Your task to perform on an android device: Open Google Image 0: 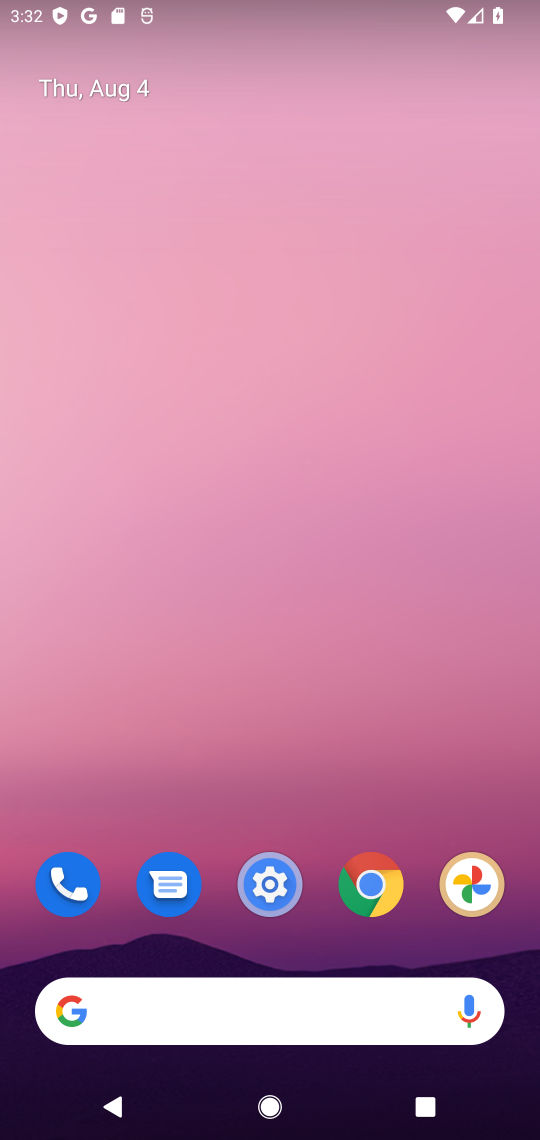
Step 0: drag from (185, 710) to (163, 445)
Your task to perform on an android device: Open Google Image 1: 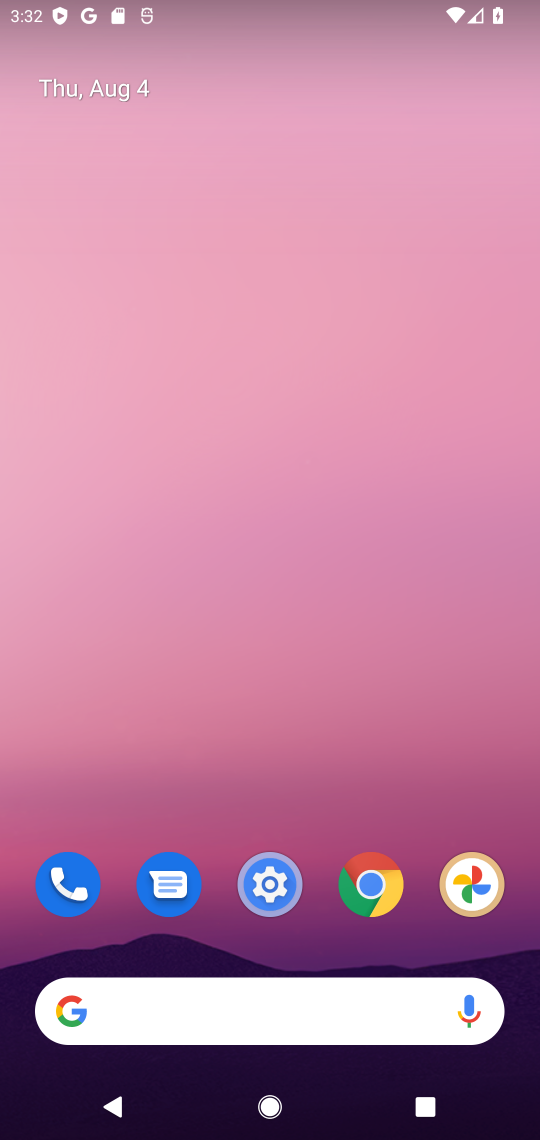
Step 1: drag from (222, 938) to (347, 71)
Your task to perform on an android device: Open Google Image 2: 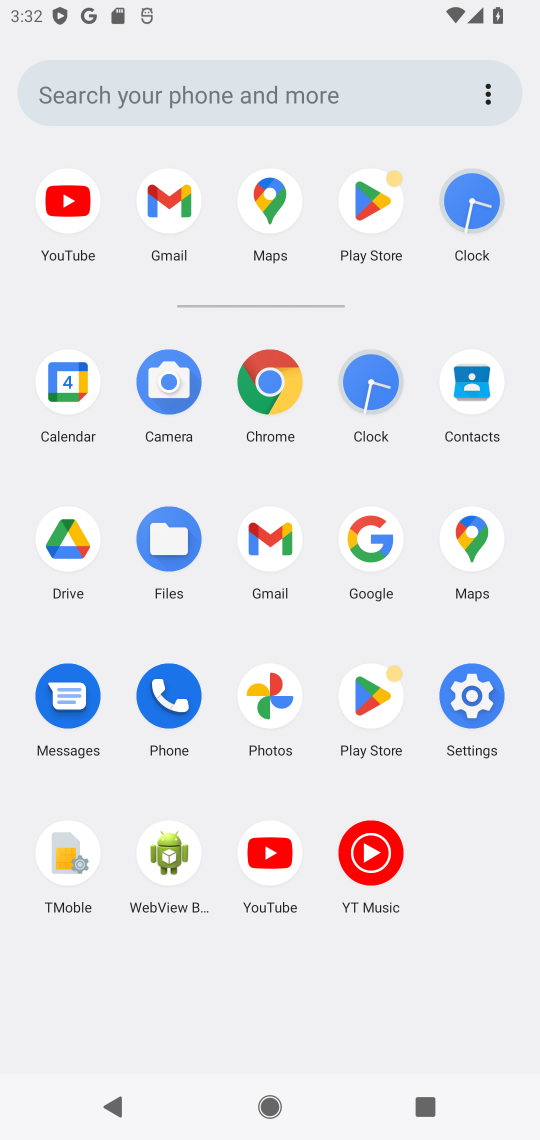
Step 2: click (367, 521)
Your task to perform on an android device: Open Google Image 3: 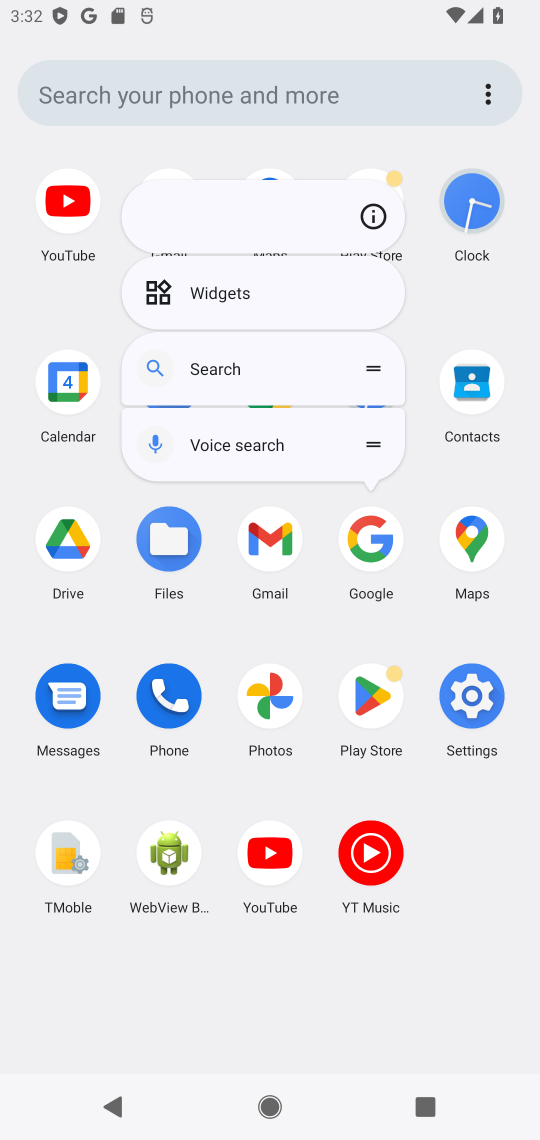
Step 3: click (364, 219)
Your task to perform on an android device: Open Google Image 4: 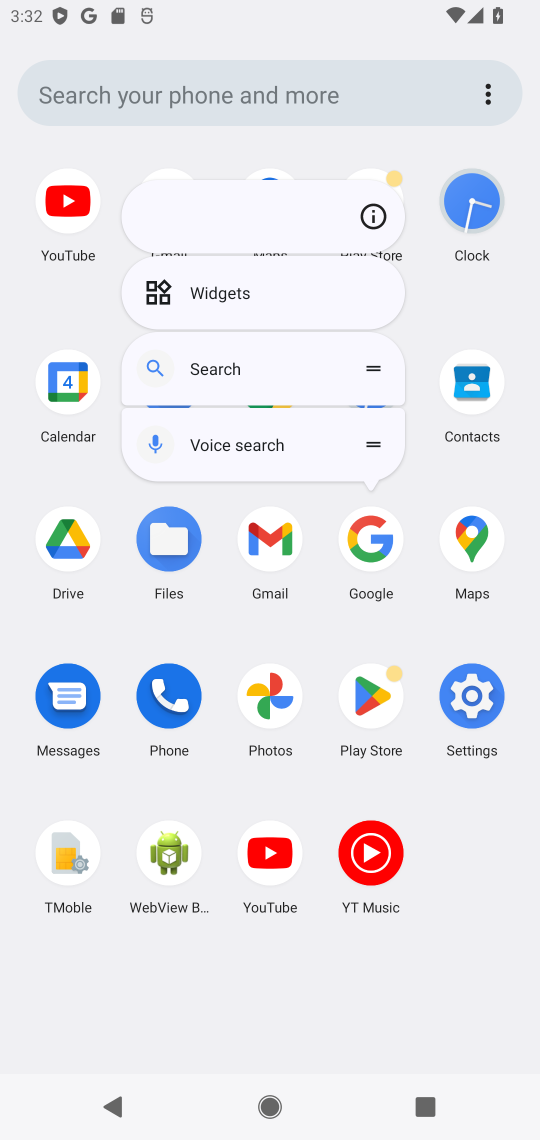
Step 4: click (370, 220)
Your task to perform on an android device: Open Google Image 5: 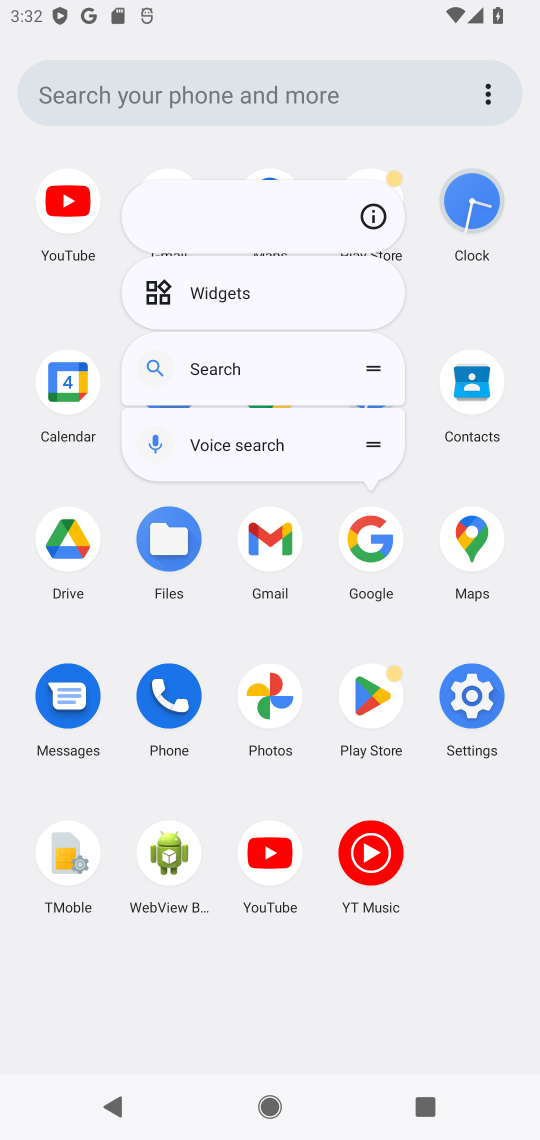
Step 5: click (358, 214)
Your task to perform on an android device: Open Google Image 6: 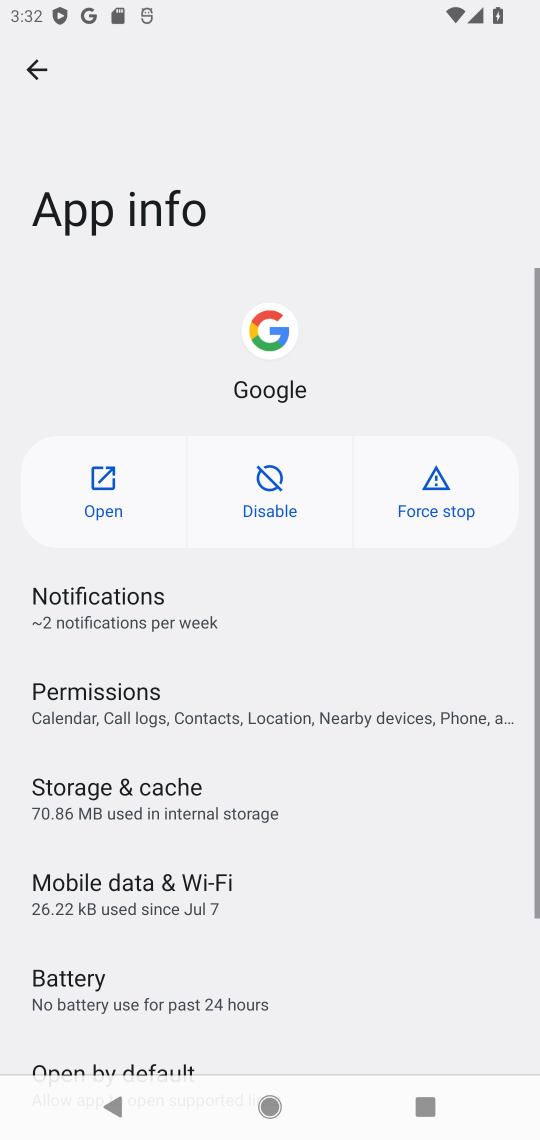
Step 6: click (111, 482)
Your task to perform on an android device: Open Google Image 7: 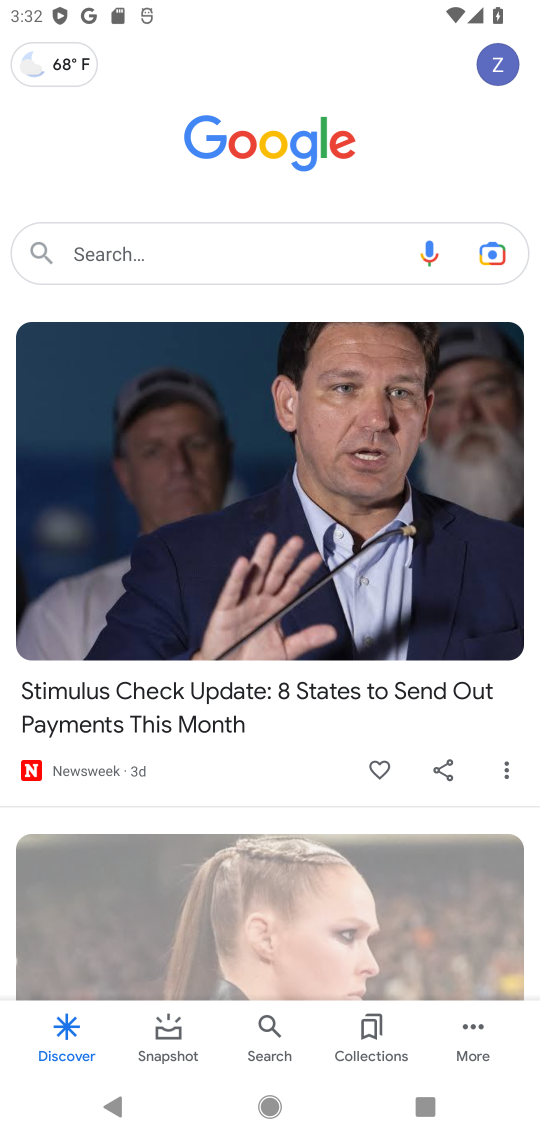
Step 7: task complete